Your task to perform on an android device: Open Google Chrome Image 0: 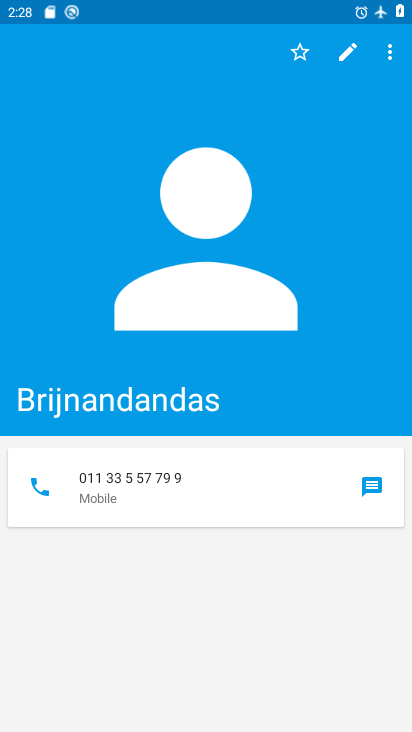
Step 0: press home button
Your task to perform on an android device: Open Google Chrome Image 1: 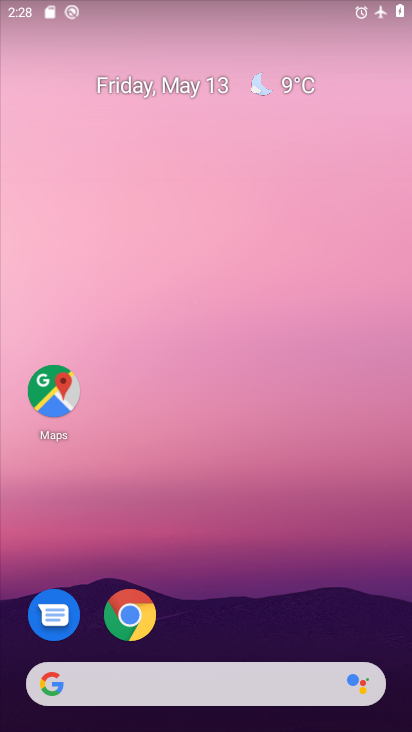
Step 1: click (141, 609)
Your task to perform on an android device: Open Google Chrome Image 2: 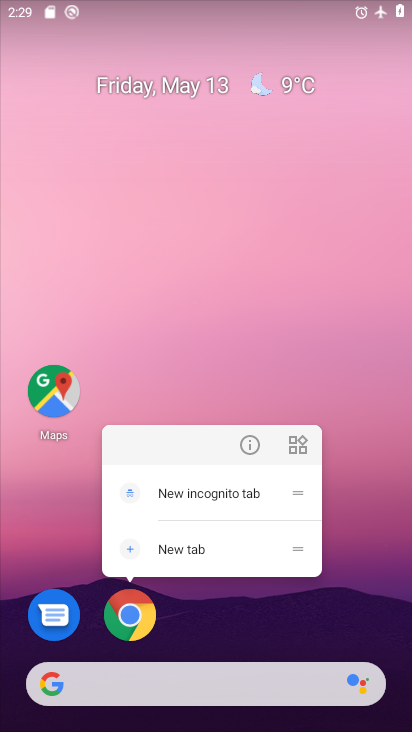
Step 2: click (141, 609)
Your task to perform on an android device: Open Google Chrome Image 3: 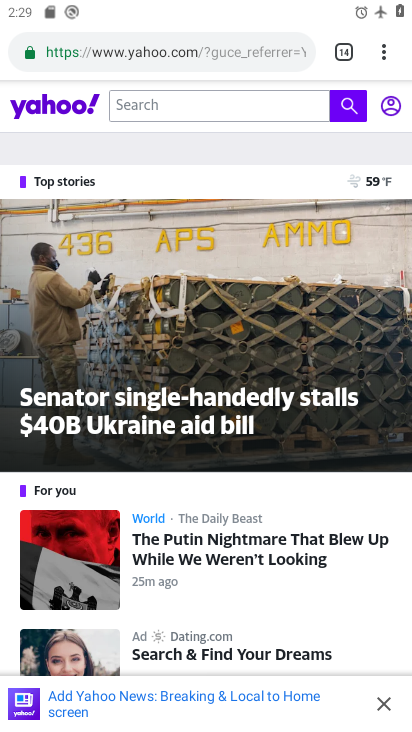
Step 3: click (382, 54)
Your task to perform on an android device: Open Google Chrome Image 4: 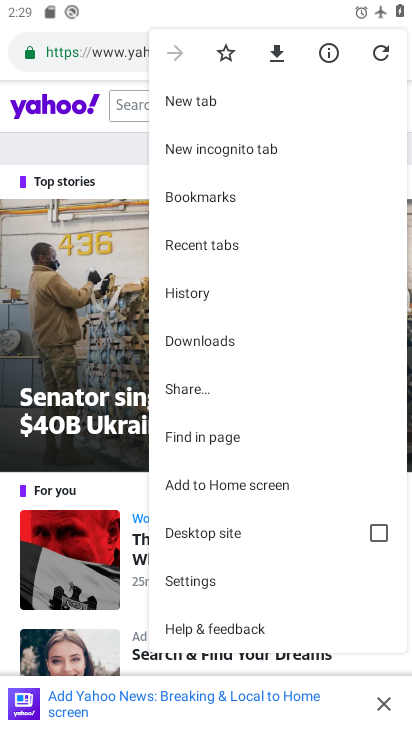
Step 4: click (306, 103)
Your task to perform on an android device: Open Google Chrome Image 5: 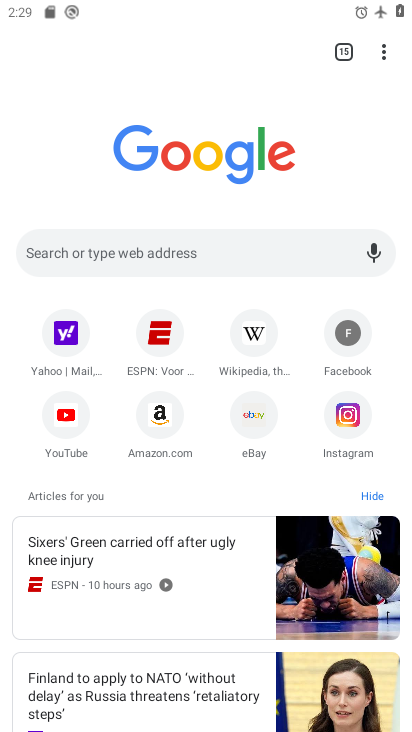
Step 5: task complete